Your task to perform on an android device: Open maps Image 0: 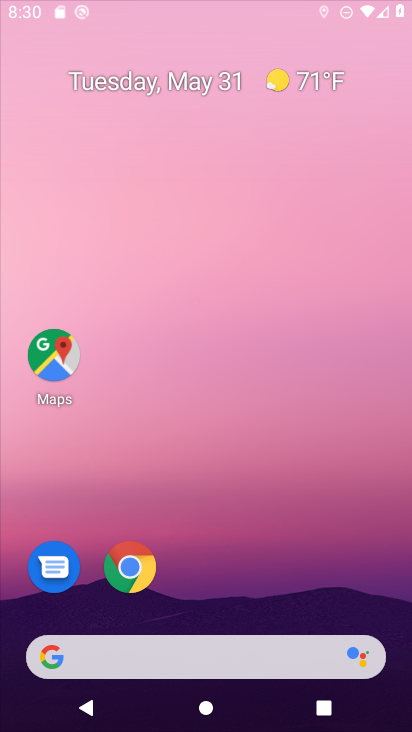
Step 0: drag from (207, 629) to (245, 79)
Your task to perform on an android device: Open maps Image 1: 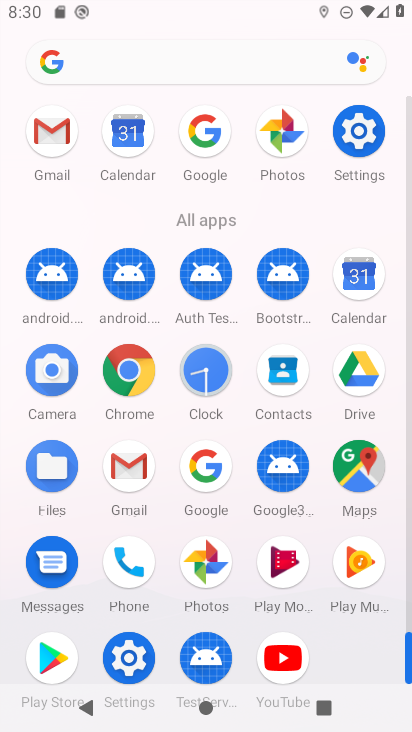
Step 1: click (372, 466)
Your task to perform on an android device: Open maps Image 2: 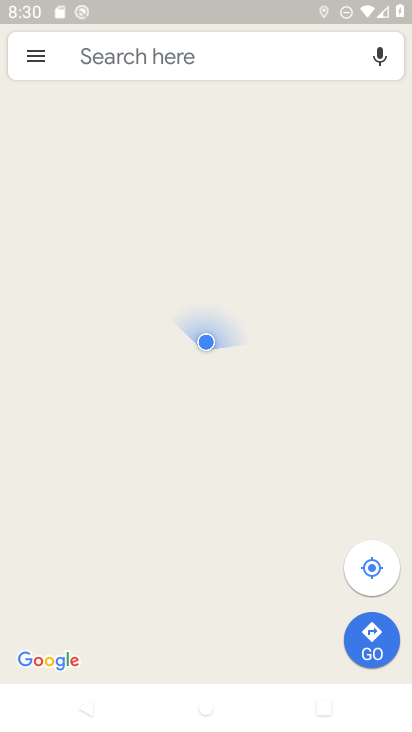
Step 2: task complete